Your task to perform on an android device: change alarm snooze length Image 0: 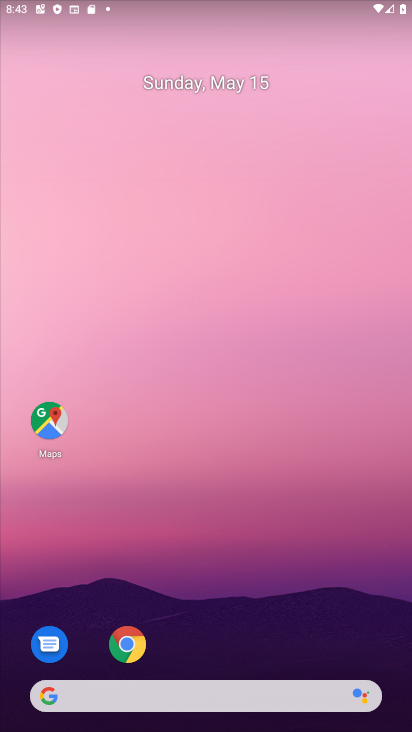
Step 0: drag from (205, 678) to (184, 198)
Your task to perform on an android device: change alarm snooze length Image 1: 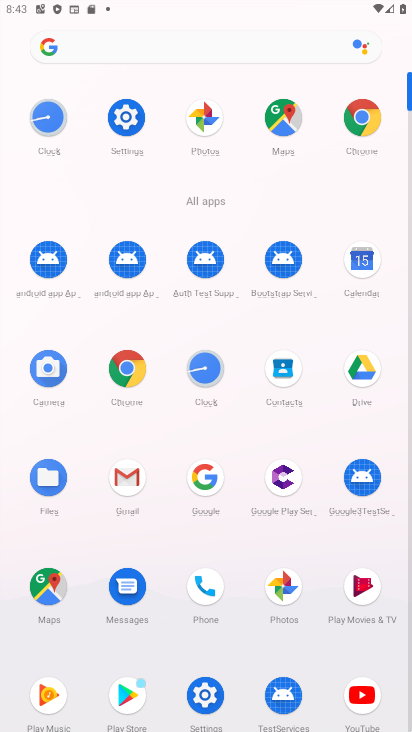
Step 1: click (204, 382)
Your task to perform on an android device: change alarm snooze length Image 2: 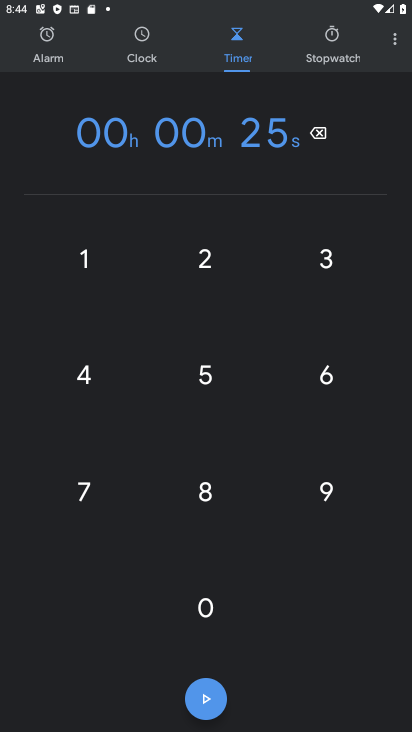
Step 2: click (397, 42)
Your task to perform on an android device: change alarm snooze length Image 3: 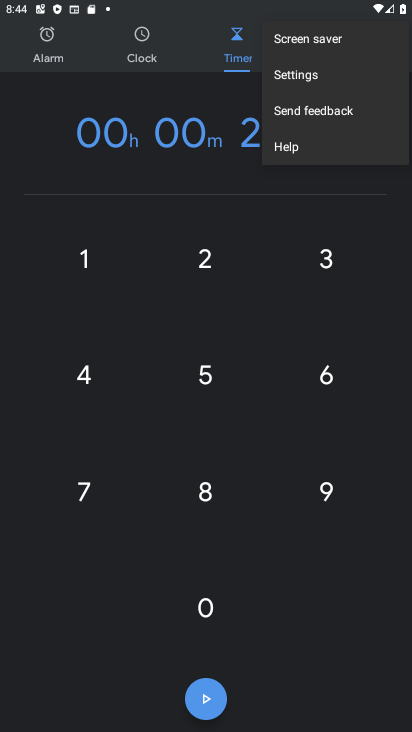
Step 3: click (304, 86)
Your task to perform on an android device: change alarm snooze length Image 4: 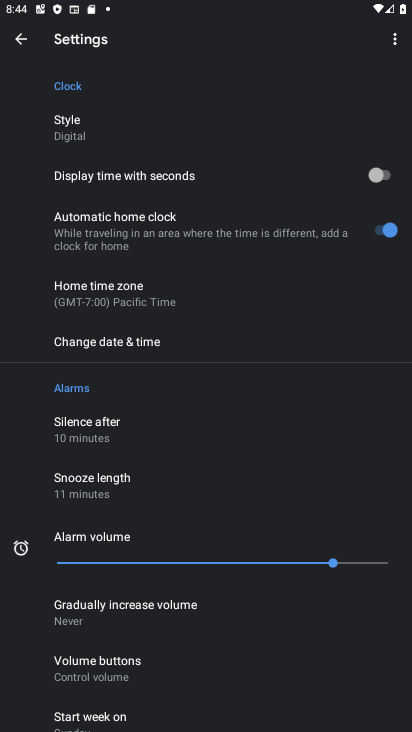
Step 4: click (123, 497)
Your task to perform on an android device: change alarm snooze length Image 5: 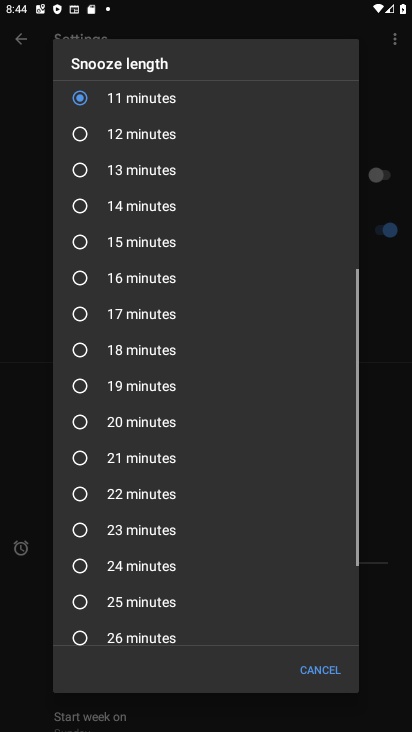
Step 5: click (116, 143)
Your task to perform on an android device: change alarm snooze length Image 6: 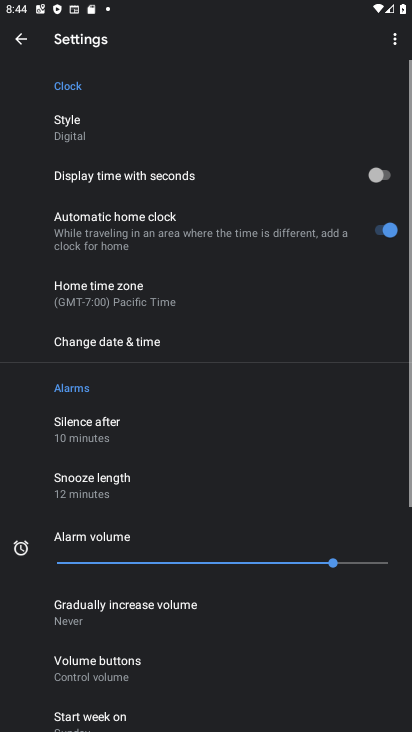
Step 6: task complete